Your task to perform on an android device: turn off location history Image 0: 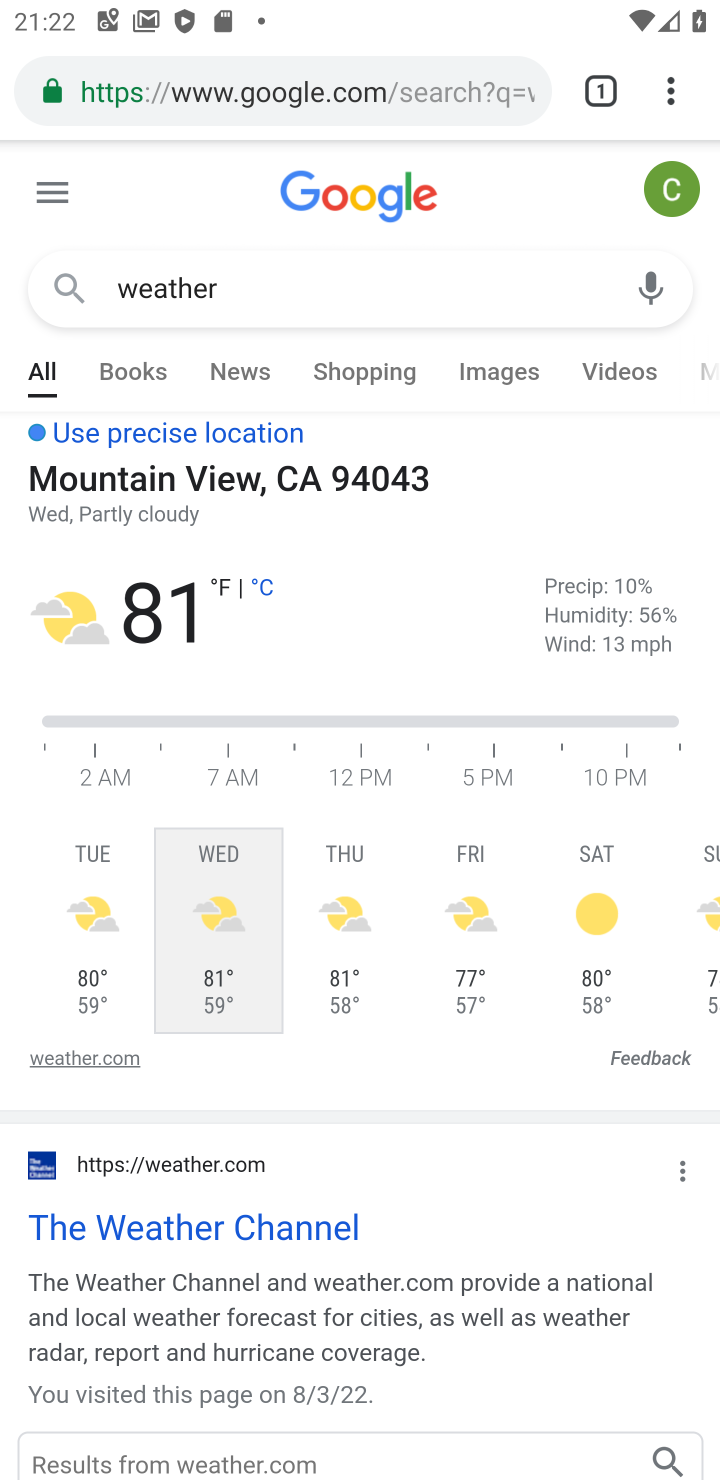
Step 0: press home button
Your task to perform on an android device: turn off location history Image 1: 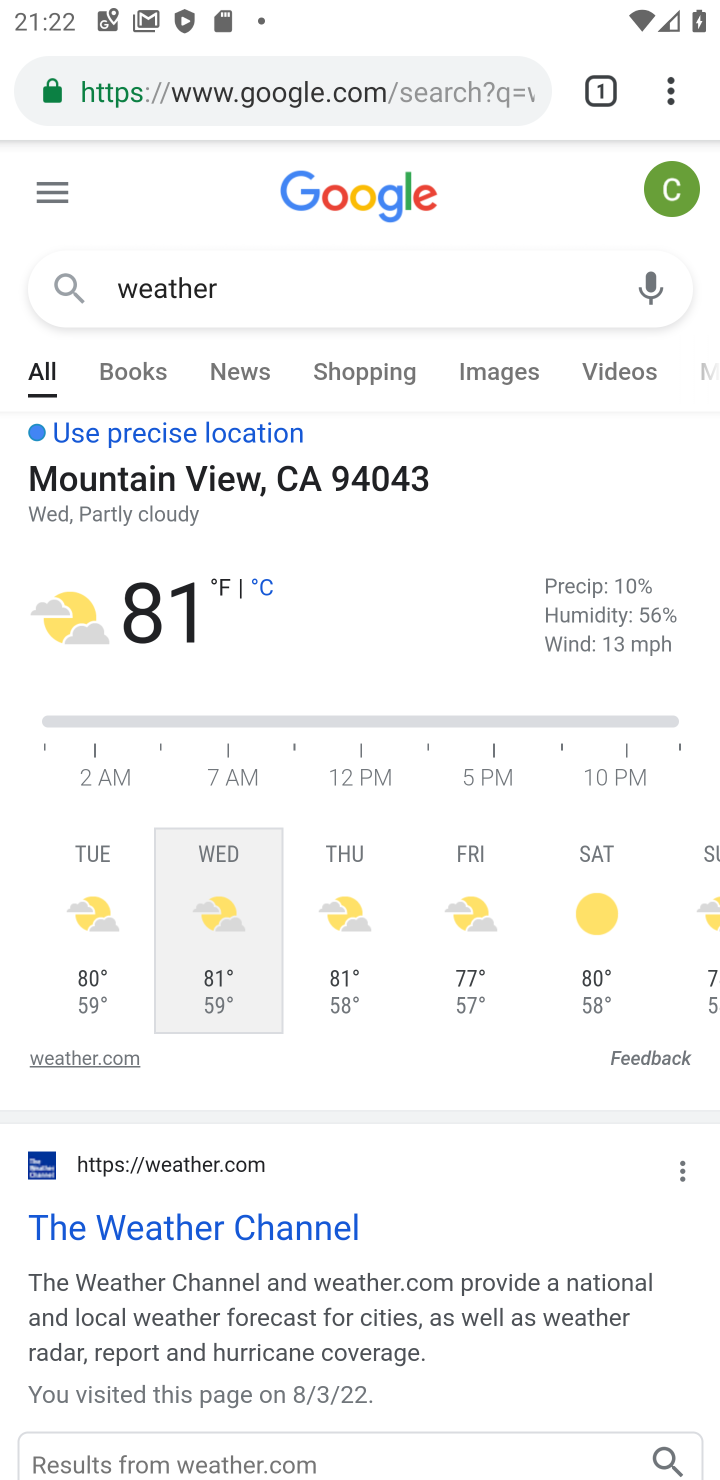
Step 1: press home button
Your task to perform on an android device: turn off location history Image 2: 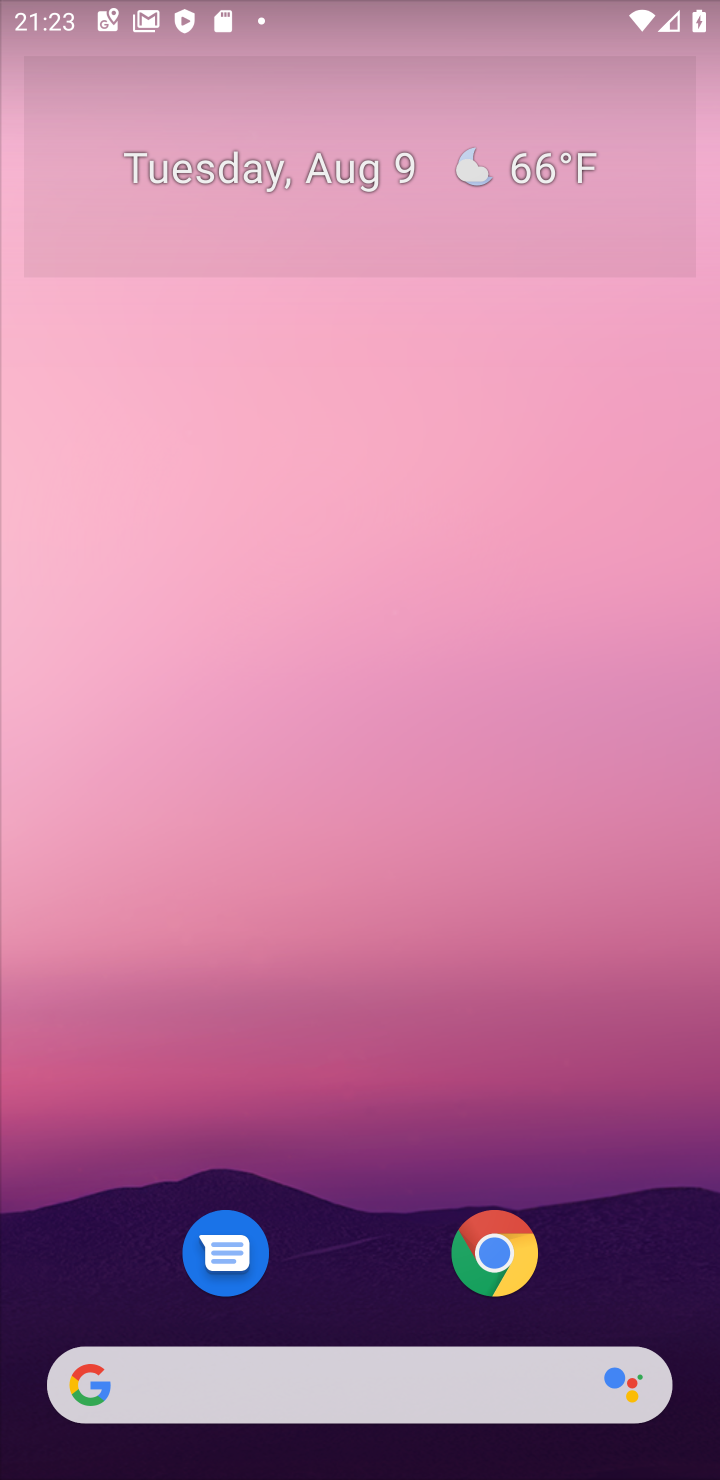
Step 2: drag from (314, 1220) to (376, 103)
Your task to perform on an android device: turn off location history Image 3: 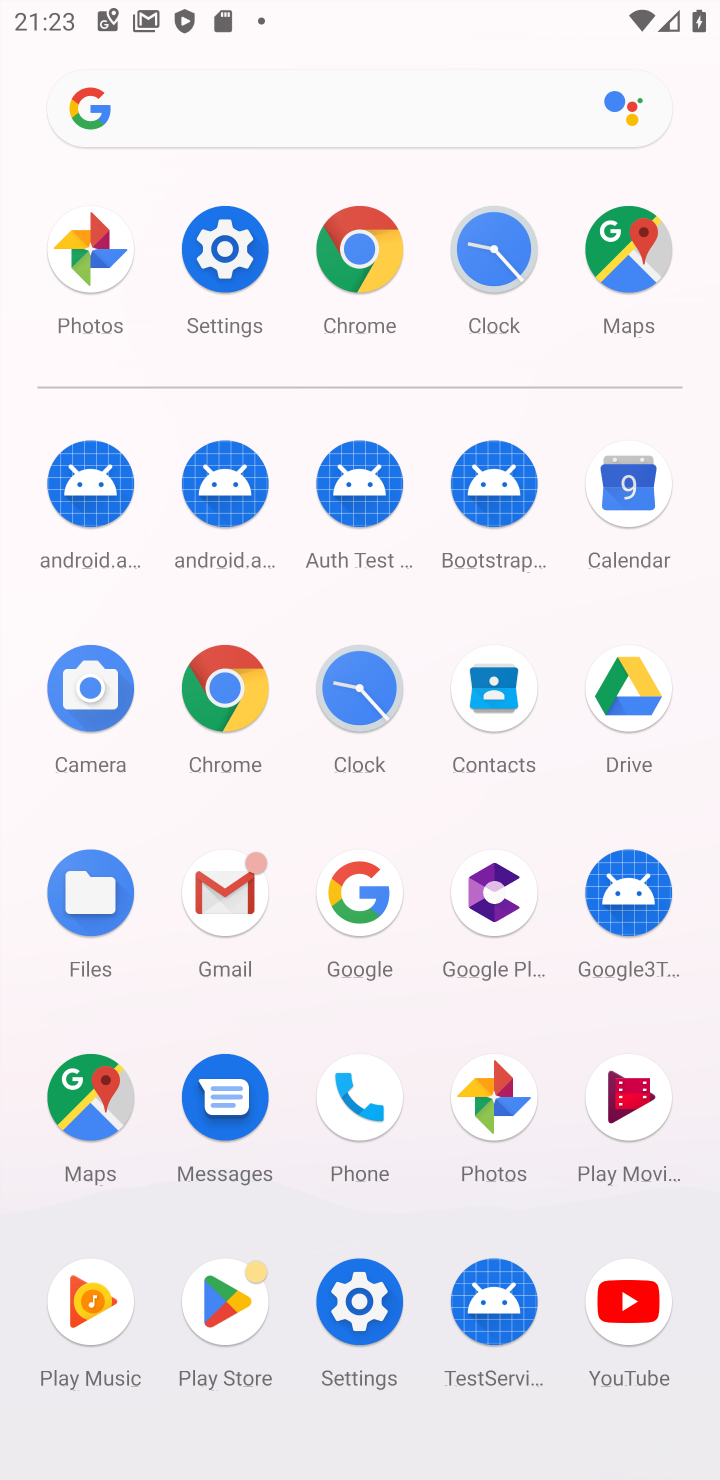
Step 3: click (369, 1299)
Your task to perform on an android device: turn off location history Image 4: 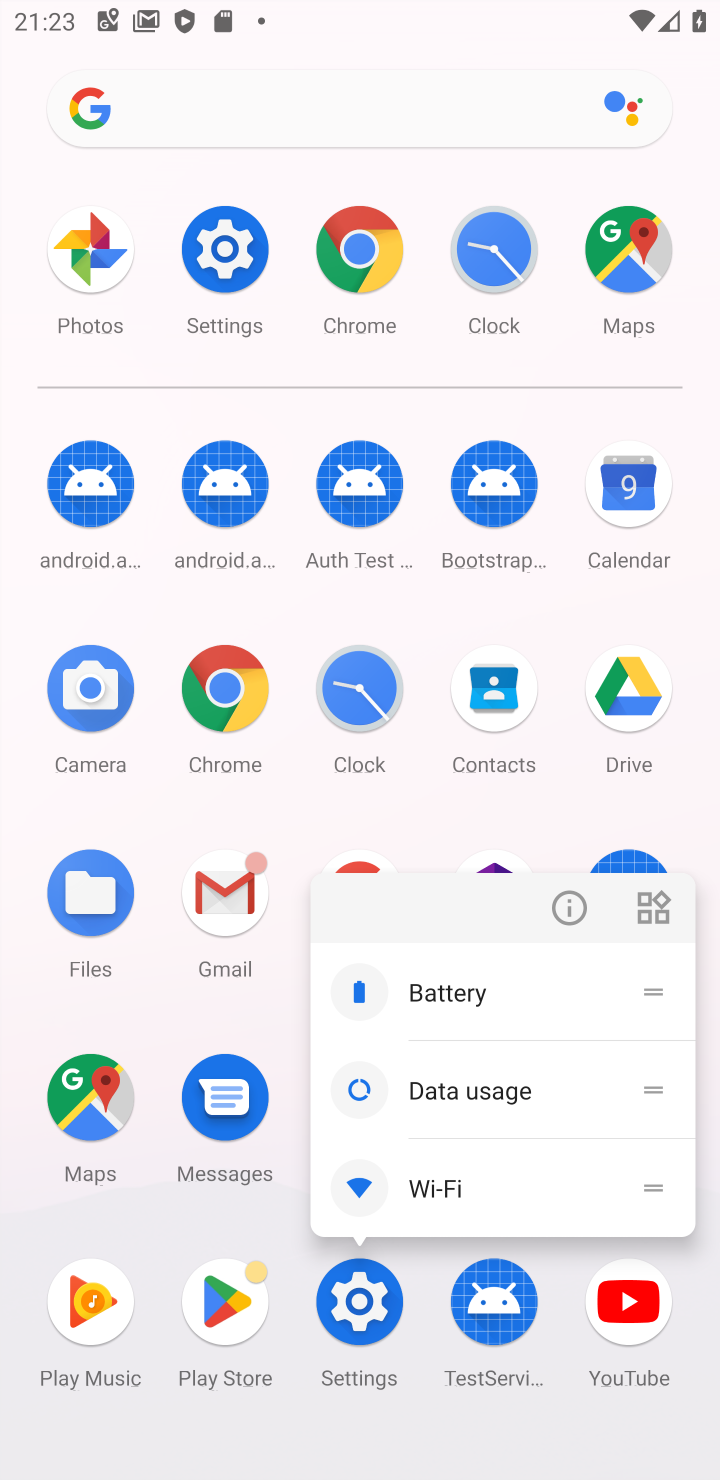
Step 4: click (365, 1306)
Your task to perform on an android device: turn off location history Image 5: 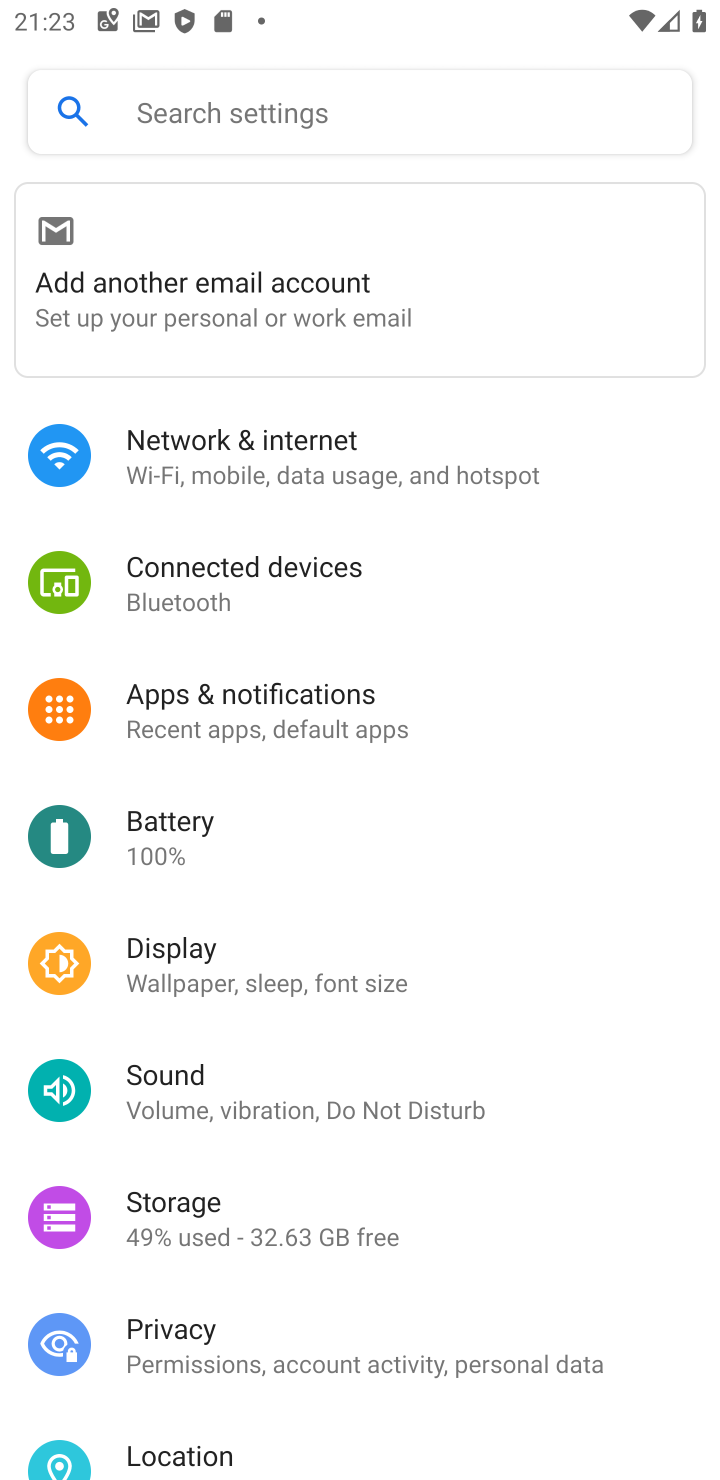
Step 5: click (140, 1432)
Your task to perform on an android device: turn off location history Image 6: 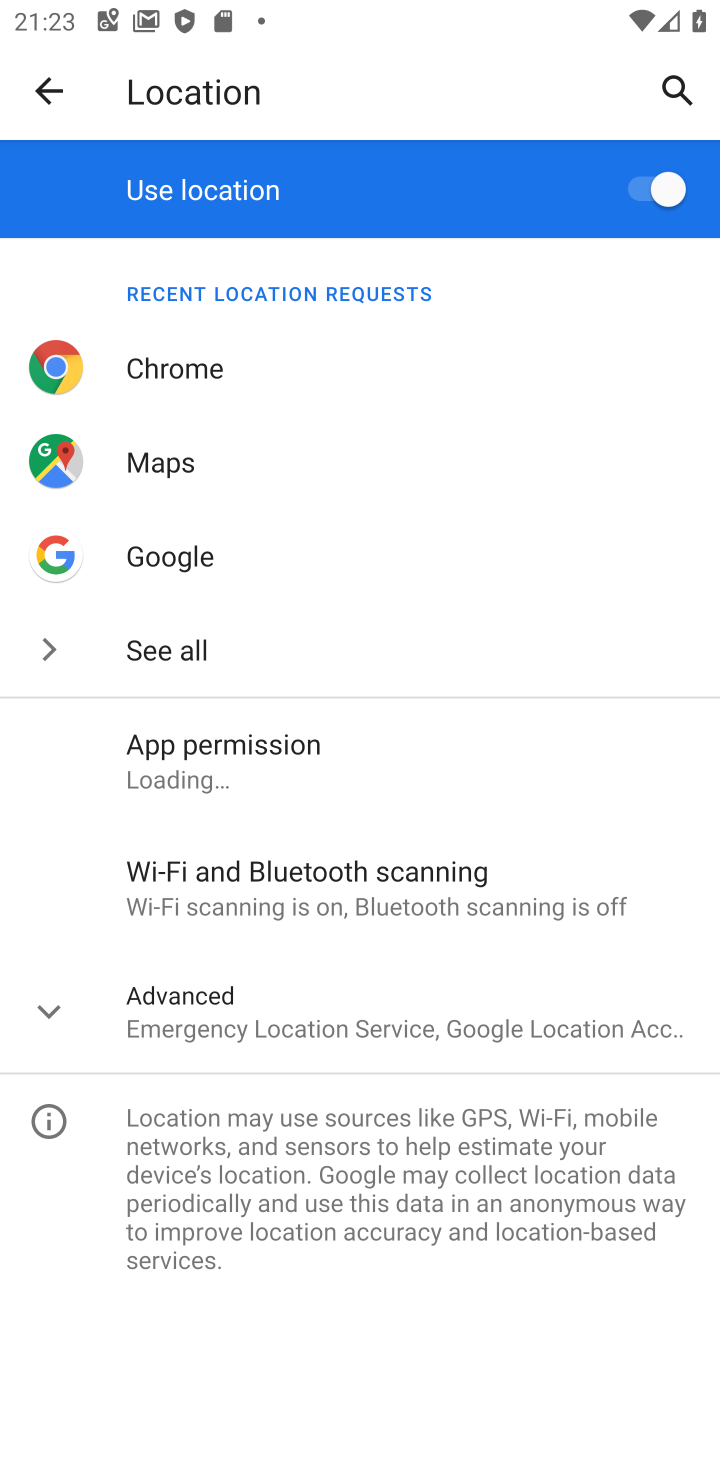
Step 6: click (275, 1014)
Your task to perform on an android device: turn off location history Image 7: 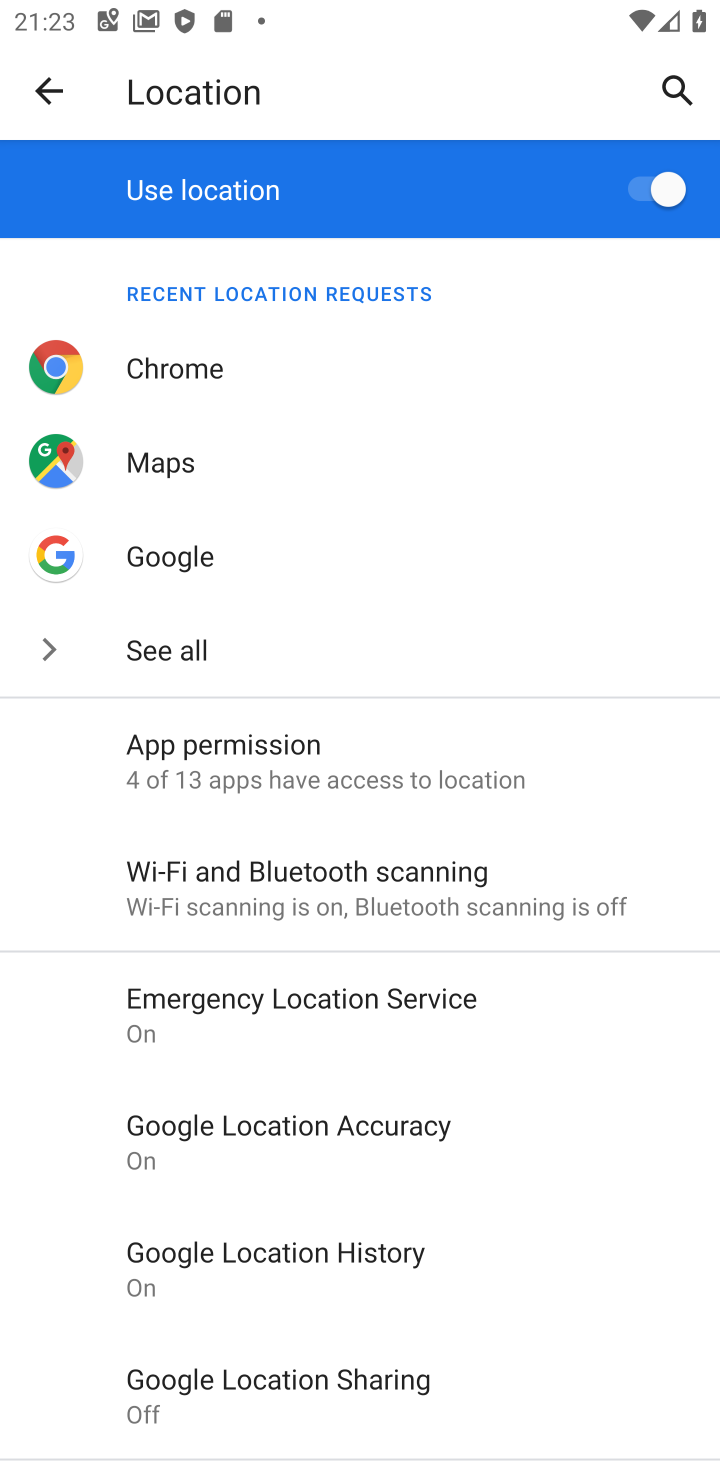
Step 7: click (311, 1271)
Your task to perform on an android device: turn off location history Image 8: 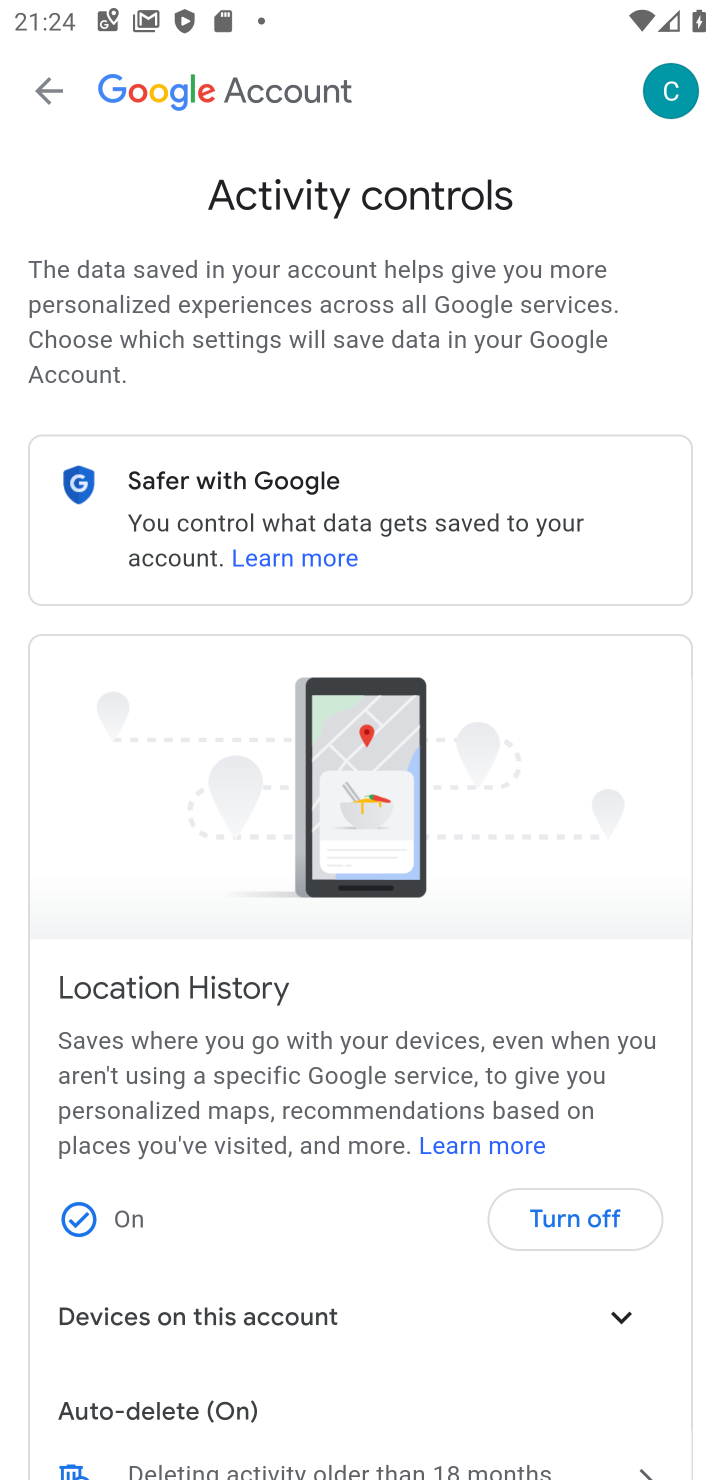
Step 8: click (568, 1201)
Your task to perform on an android device: turn off location history Image 9: 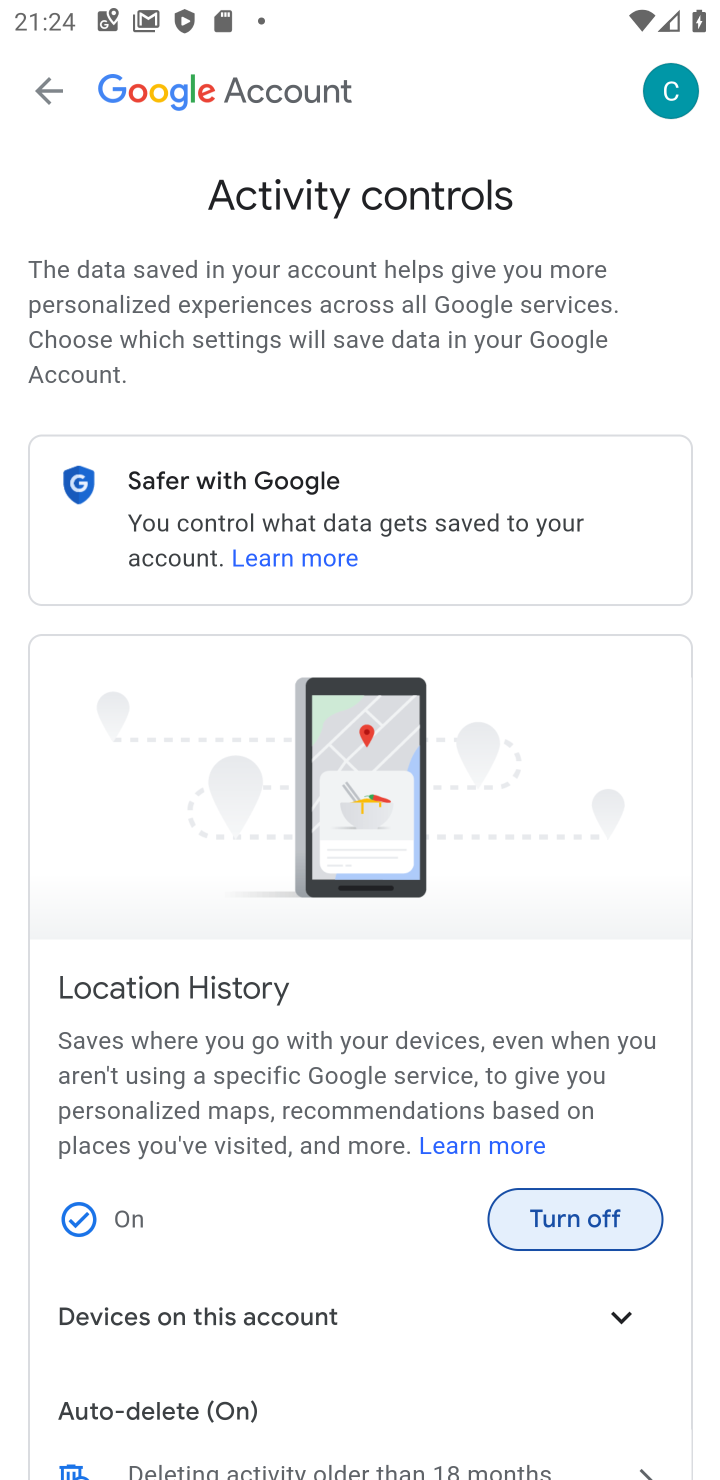
Step 9: click (571, 1217)
Your task to perform on an android device: turn off location history Image 10: 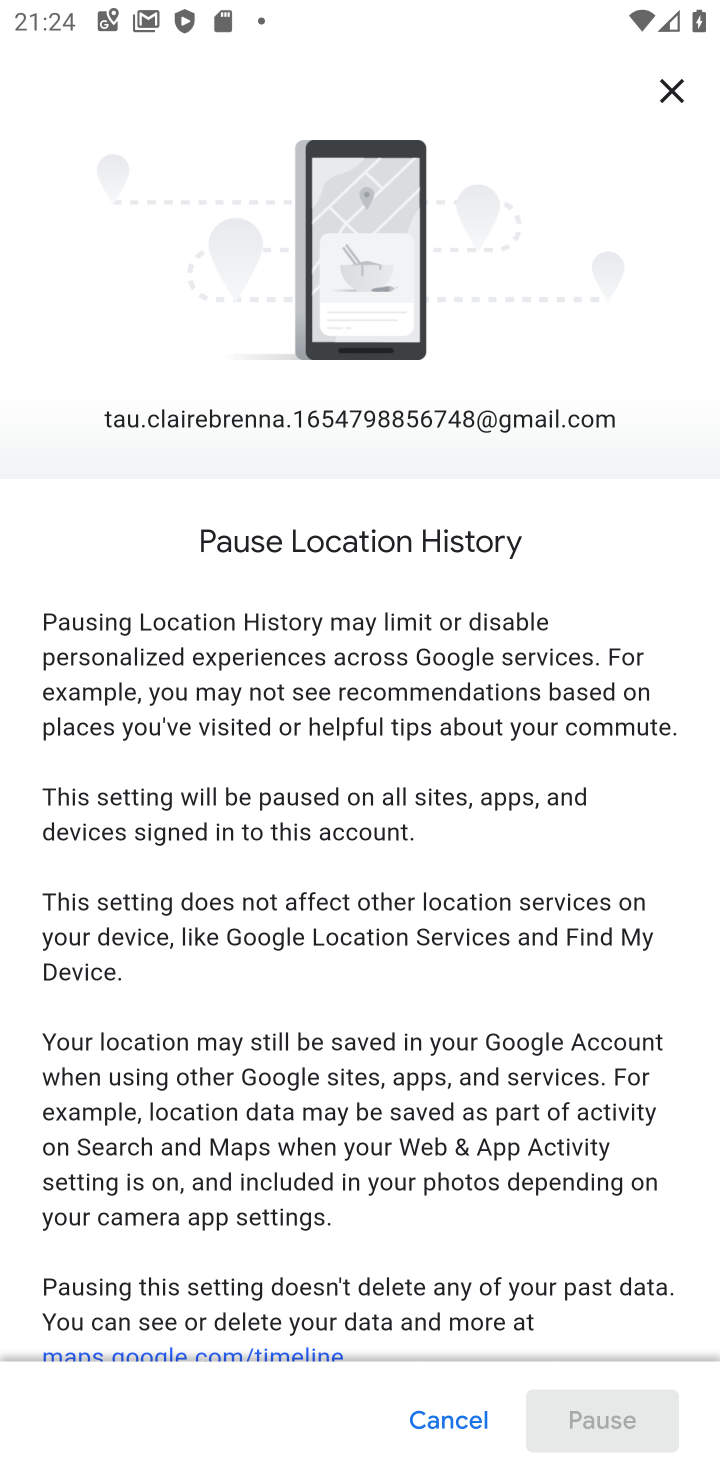
Step 10: drag from (575, 1206) to (569, 138)
Your task to perform on an android device: turn off location history Image 11: 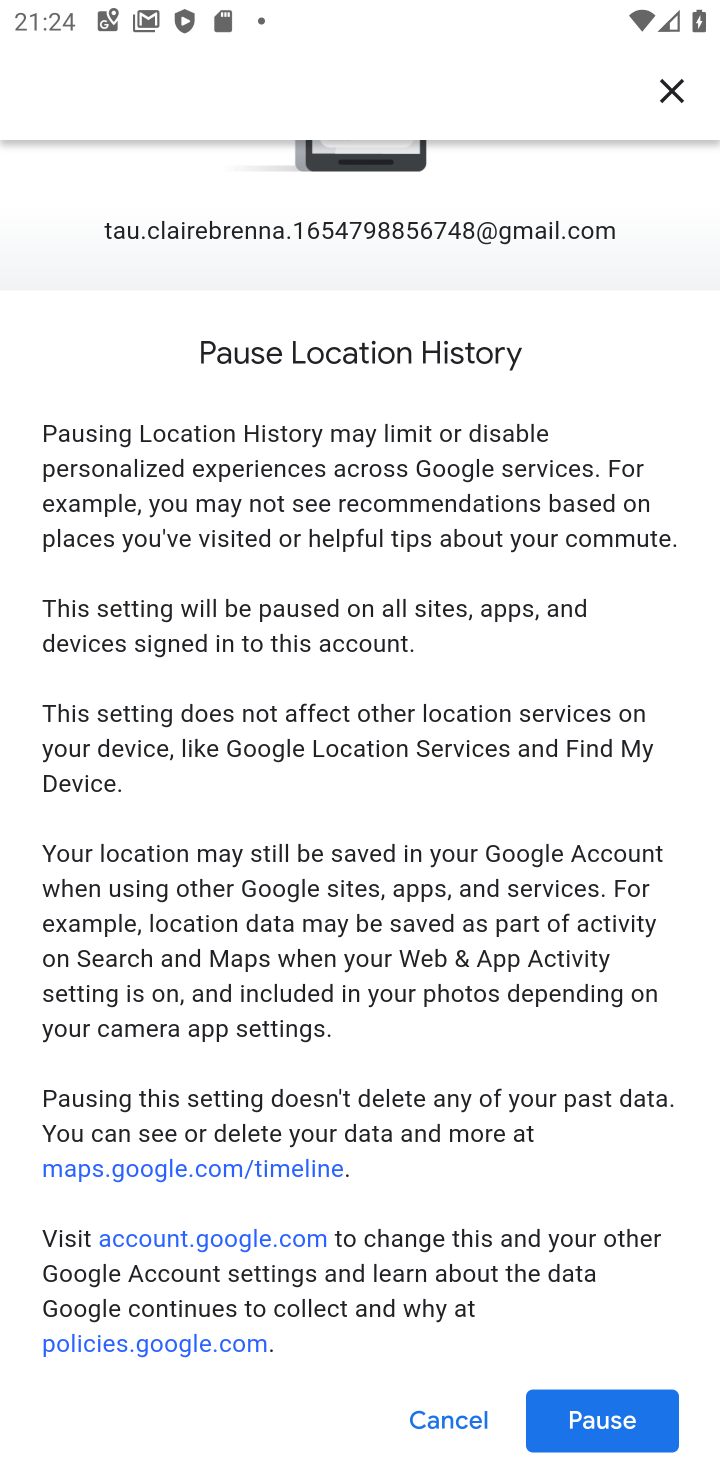
Step 11: click (614, 1422)
Your task to perform on an android device: turn off location history Image 12: 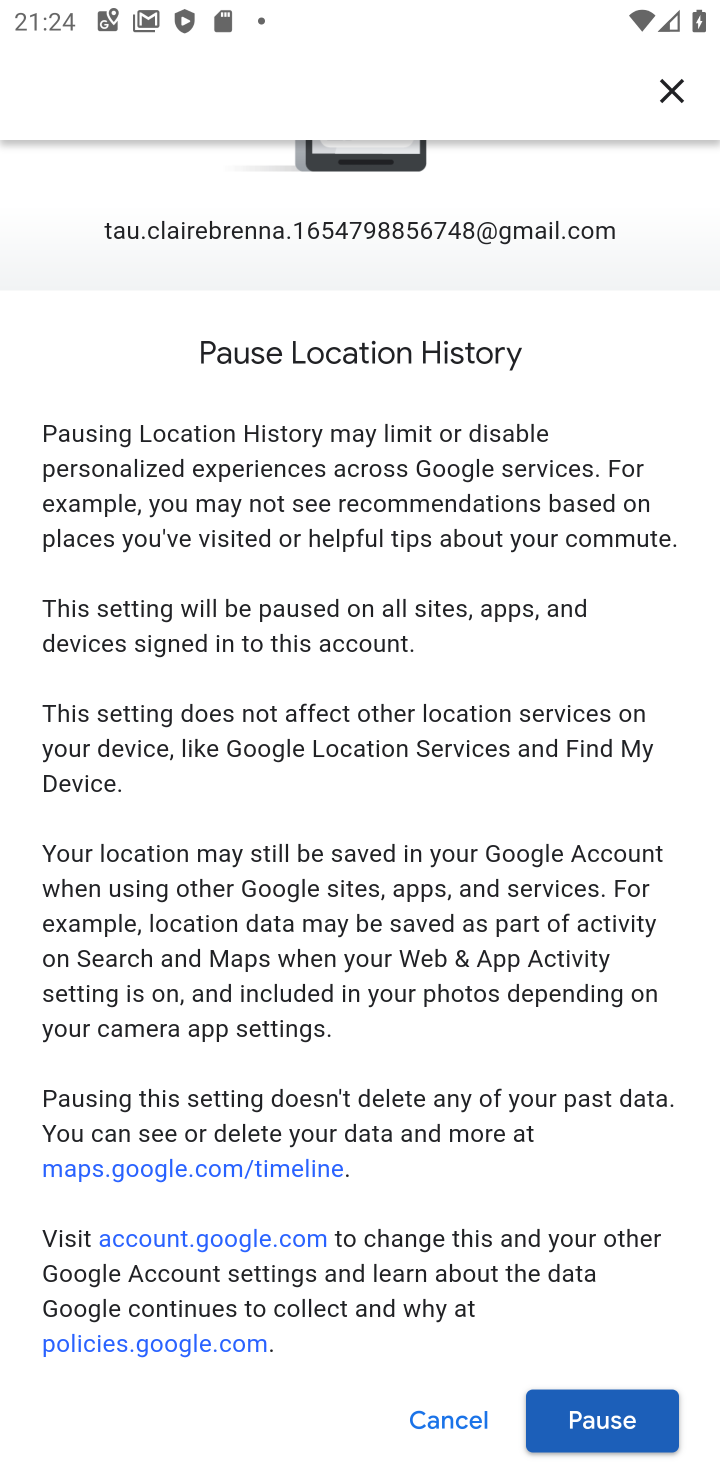
Step 12: click (630, 1418)
Your task to perform on an android device: turn off location history Image 13: 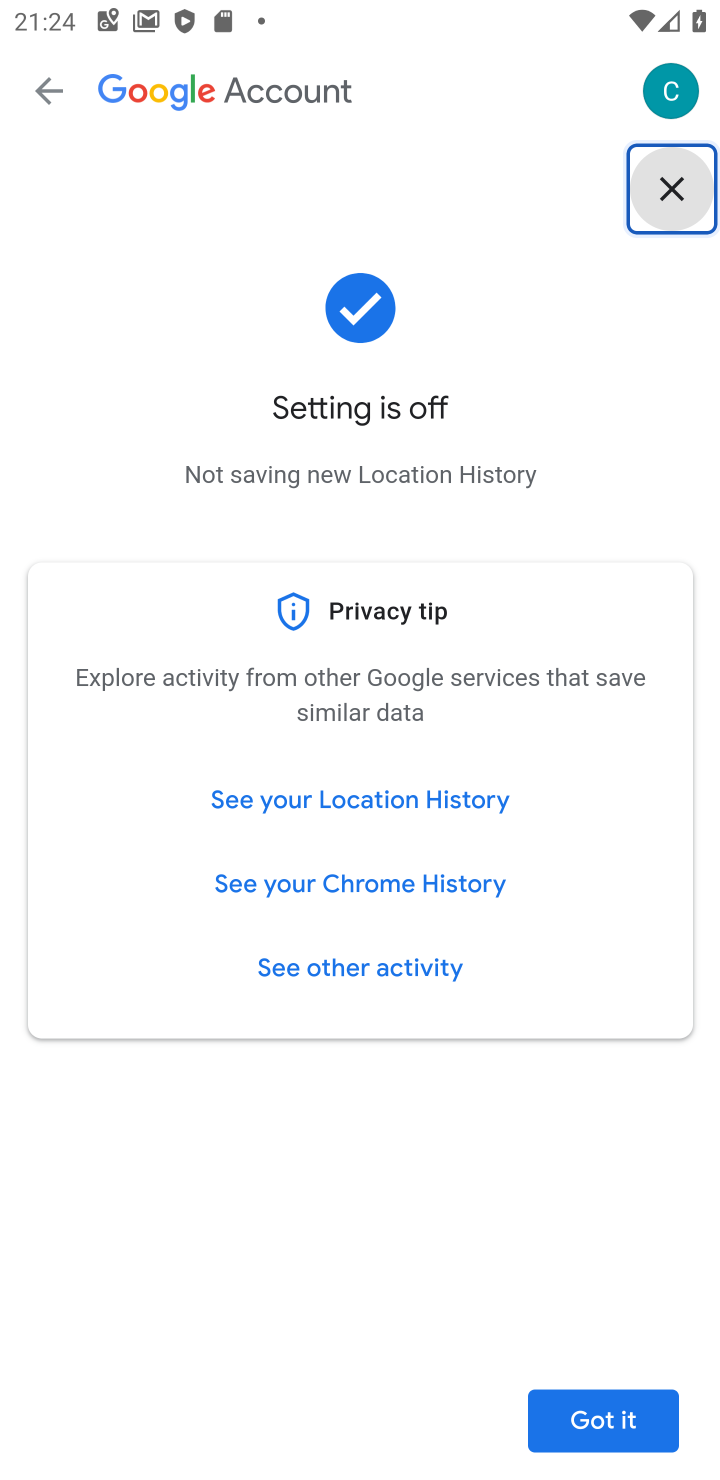
Step 13: click (601, 1416)
Your task to perform on an android device: turn off location history Image 14: 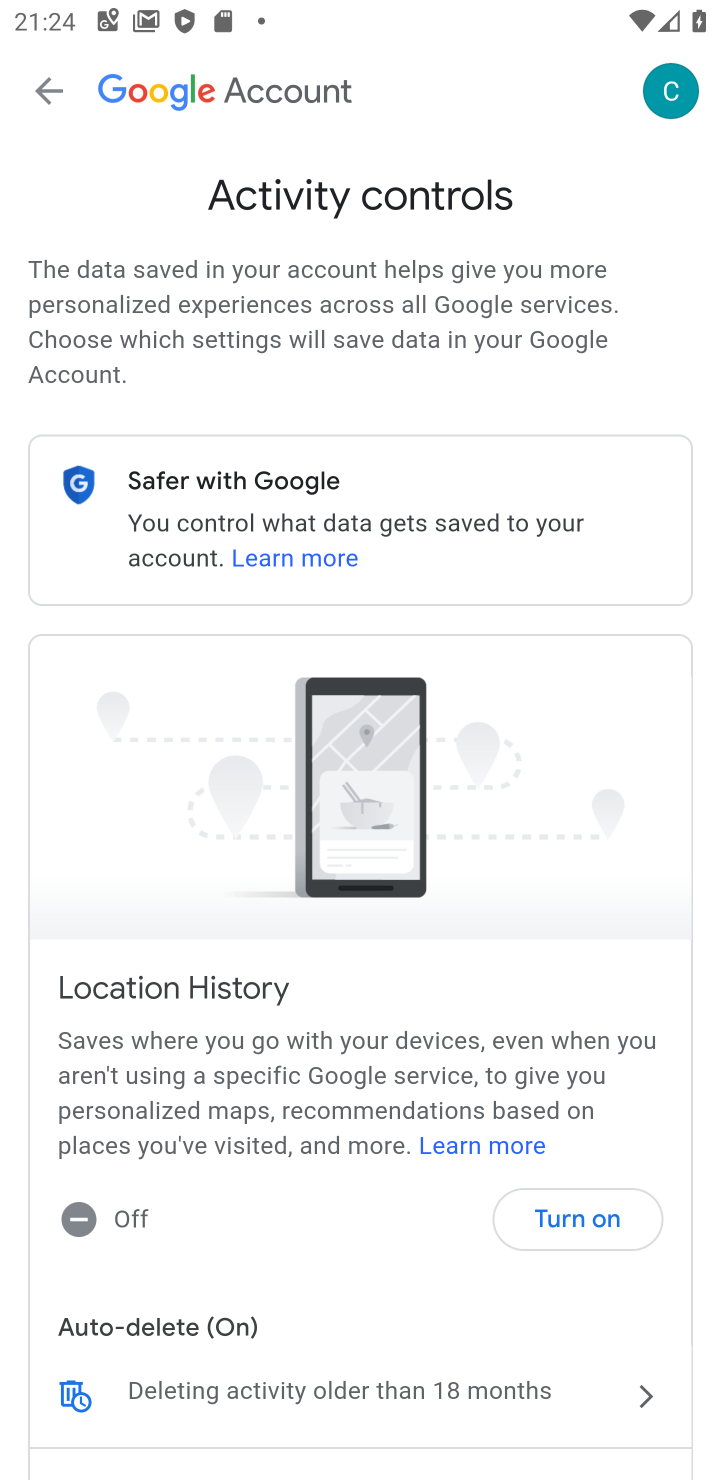
Step 14: task complete